Your task to perform on an android device: open chrome privacy settings Image 0: 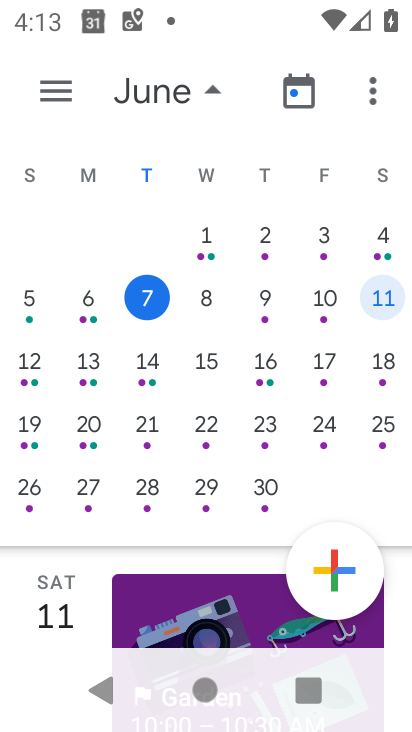
Step 0: press home button
Your task to perform on an android device: open chrome privacy settings Image 1: 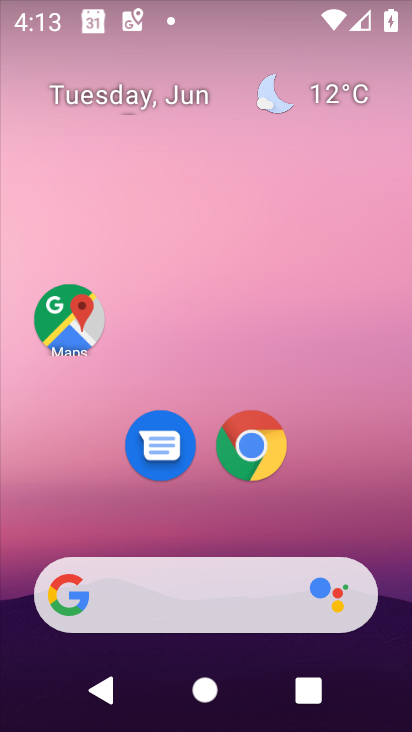
Step 1: drag from (356, 521) to (337, 9)
Your task to perform on an android device: open chrome privacy settings Image 2: 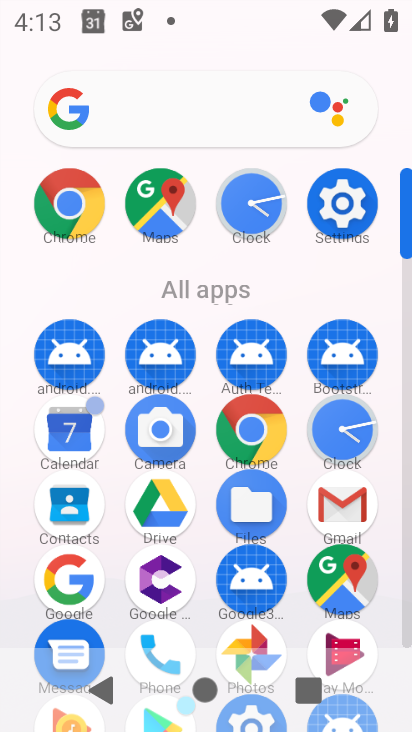
Step 2: click (32, 226)
Your task to perform on an android device: open chrome privacy settings Image 3: 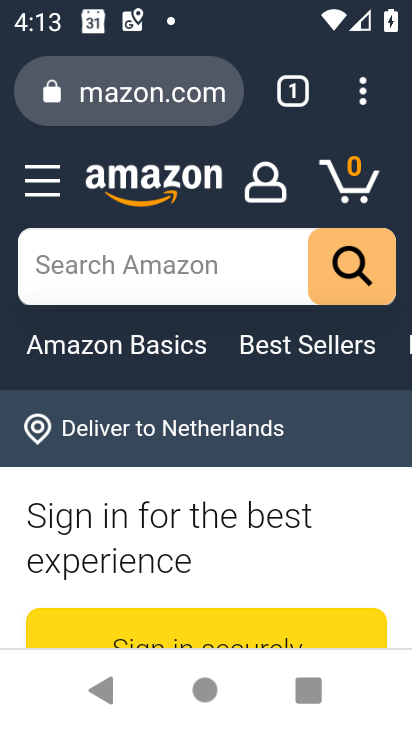
Step 3: drag from (369, 98) to (139, 471)
Your task to perform on an android device: open chrome privacy settings Image 4: 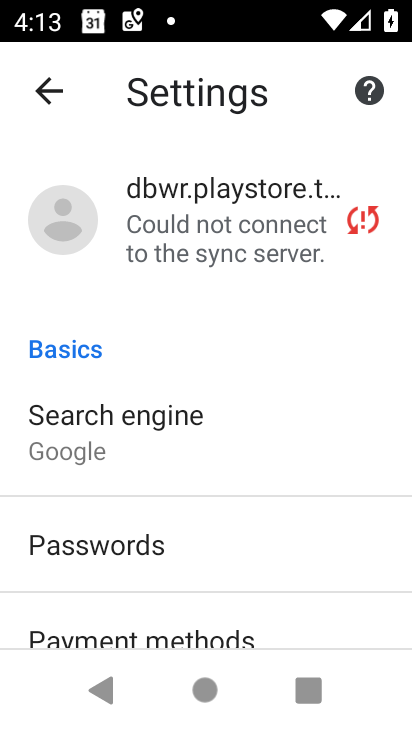
Step 4: drag from (146, 618) to (202, 153)
Your task to perform on an android device: open chrome privacy settings Image 5: 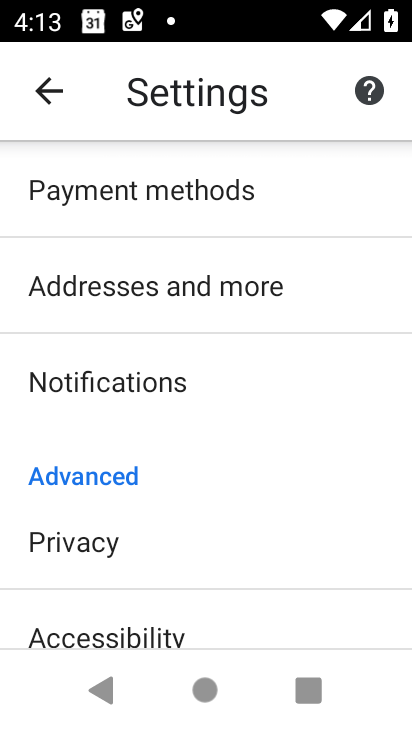
Step 5: click (128, 559)
Your task to perform on an android device: open chrome privacy settings Image 6: 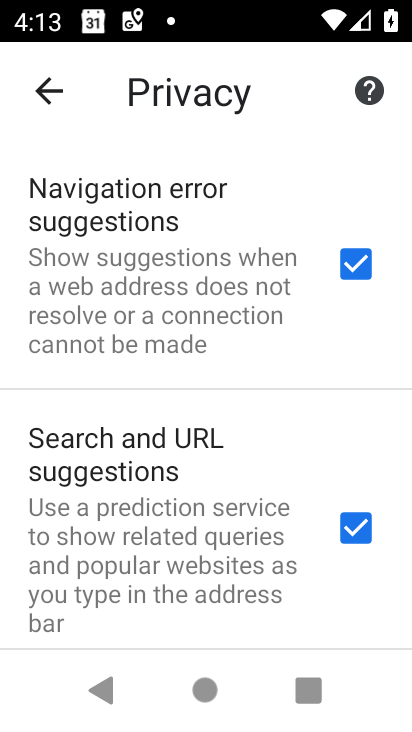
Step 6: task complete